Your task to perform on an android device: Open calendar and show me the first week of next month Image 0: 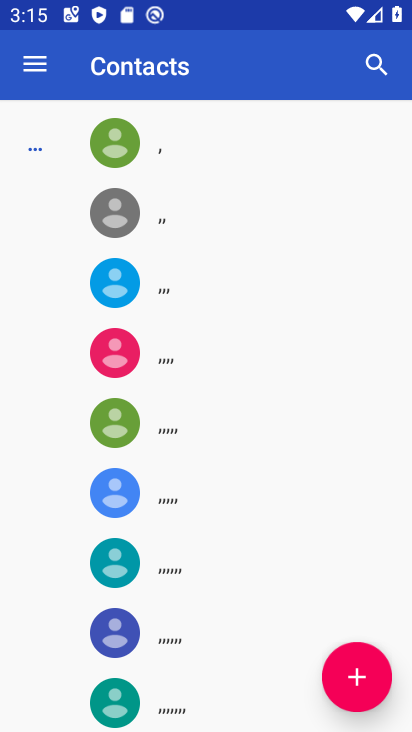
Step 0: press home button
Your task to perform on an android device: Open calendar and show me the first week of next month Image 1: 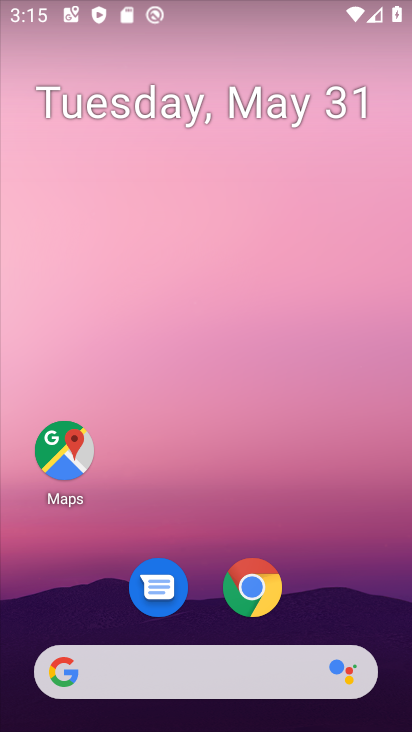
Step 1: drag from (319, 594) to (345, 46)
Your task to perform on an android device: Open calendar and show me the first week of next month Image 2: 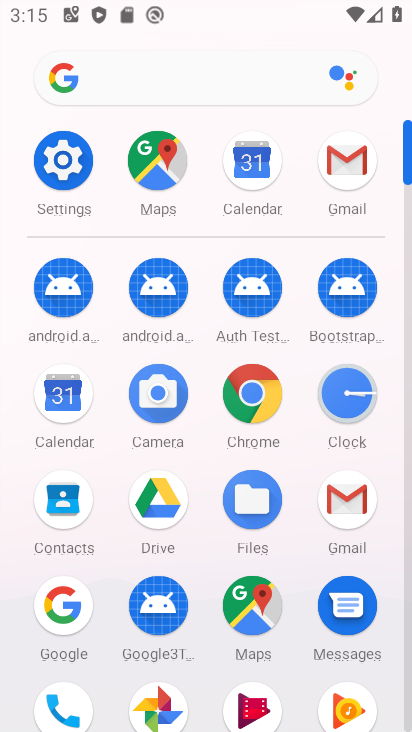
Step 2: click (66, 391)
Your task to perform on an android device: Open calendar and show me the first week of next month Image 3: 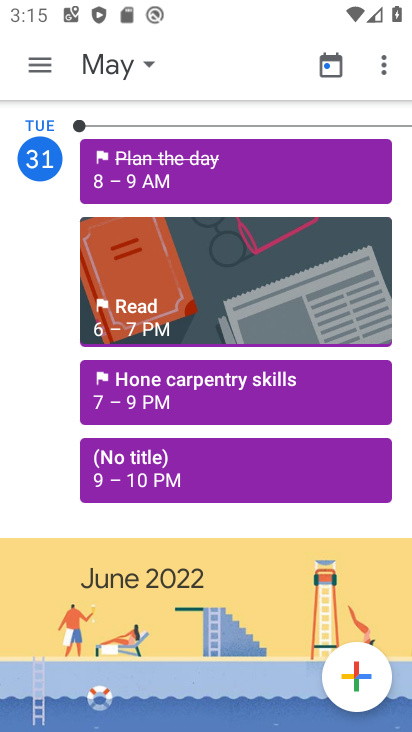
Step 3: click (130, 63)
Your task to perform on an android device: Open calendar and show me the first week of next month Image 4: 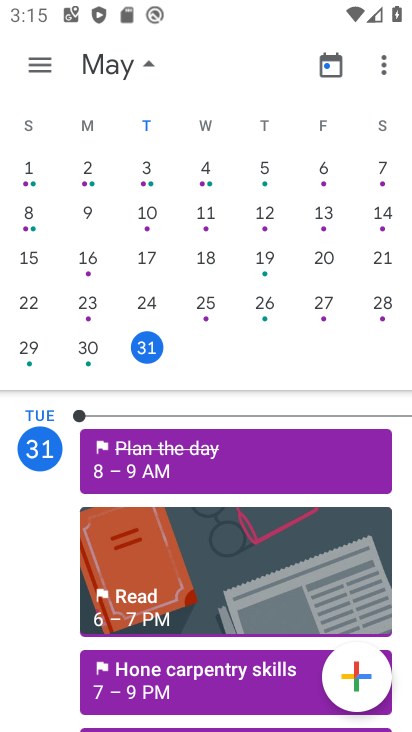
Step 4: drag from (379, 355) to (1, 311)
Your task to perform on an android device: Open calendar and show me the first week of next month Image 5: 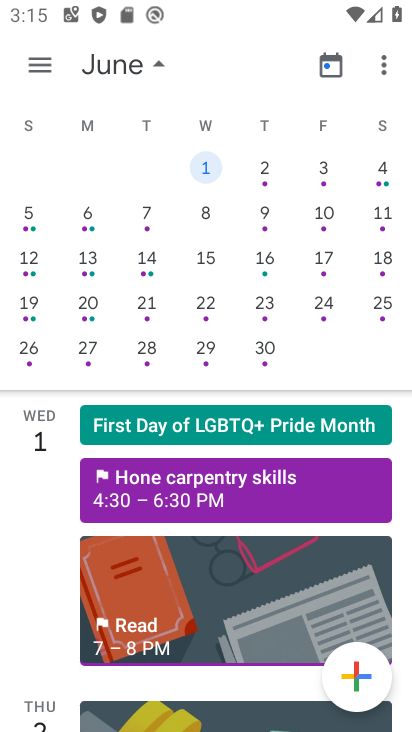
Step 5: click (217, 177)
Your task to perform on an android device: Open calendar and show me the first week of next month Image 6: 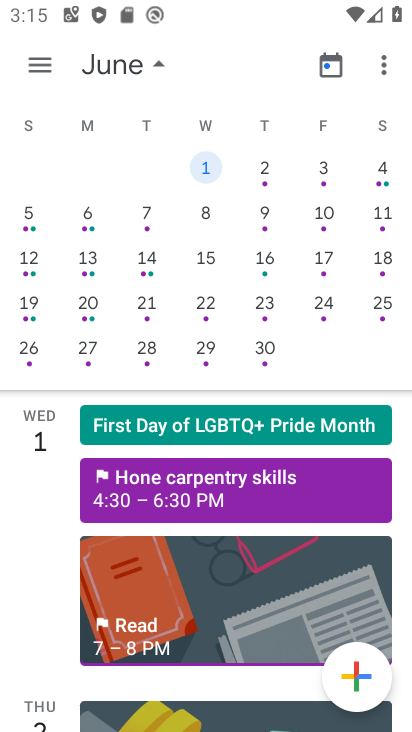
Step 6: task complete